Your task to perform on an android device: all mails in gmail Image 0: 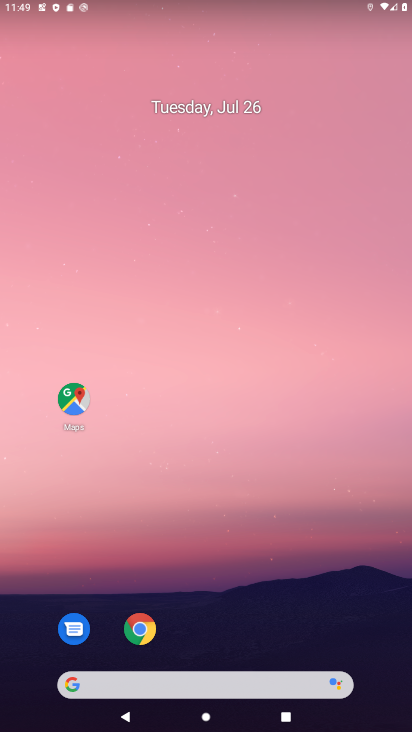
Step 0: drag from (224, 727) to (220, 160)
Your task to perform on an android device: all mails in gmail Image 1: 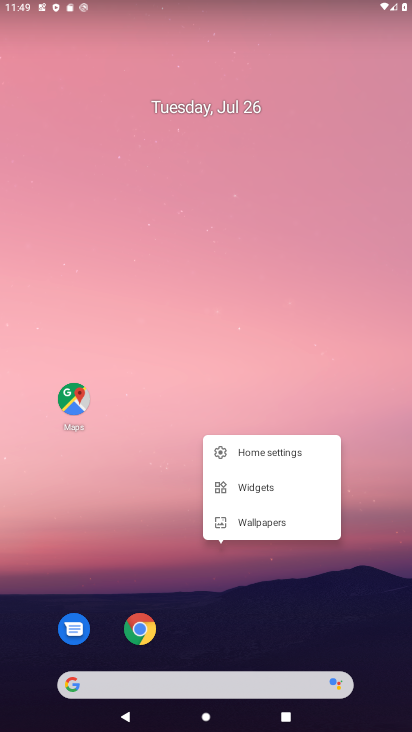
Step 1: click (205, 345)
Your task to perform on an android device: all mails in gmail Image 2: 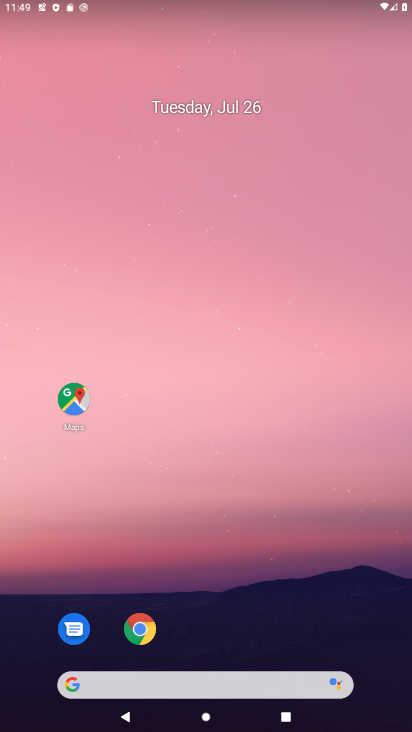
Step 2: drag from (223, 716) to (220, 325)
Your task to perform on an android device: all mails in gmail Image 3: 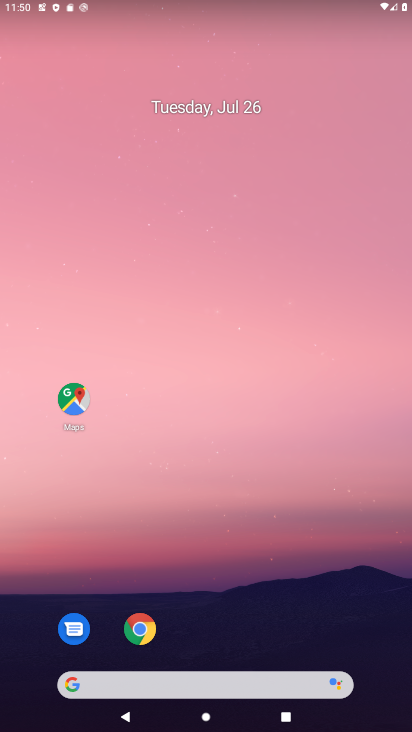
Step 3: drag from (229, 725) to (229, 73)
Your task to perform on an android device: all mails in gmail Image 4: 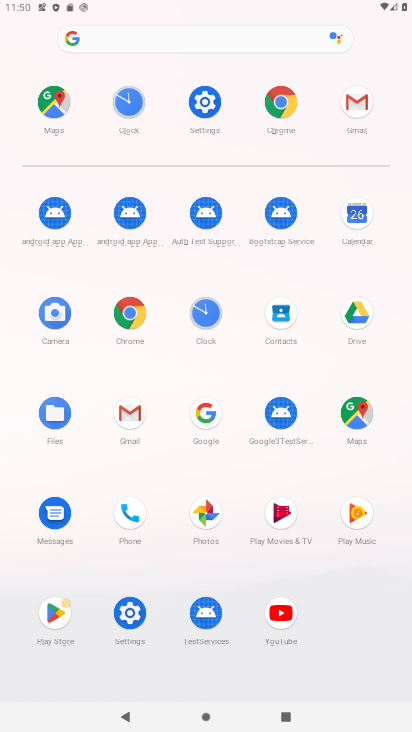
Step 4: click (137, 414)
Your task to perform on an android device: all mails in gmail Image 5: 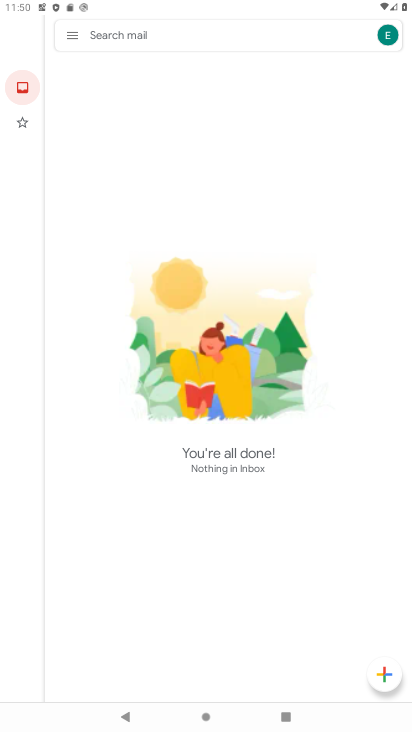
Step 5: click (71, 33)
Your task to perform on an android device: all mails in gmail Image 6: 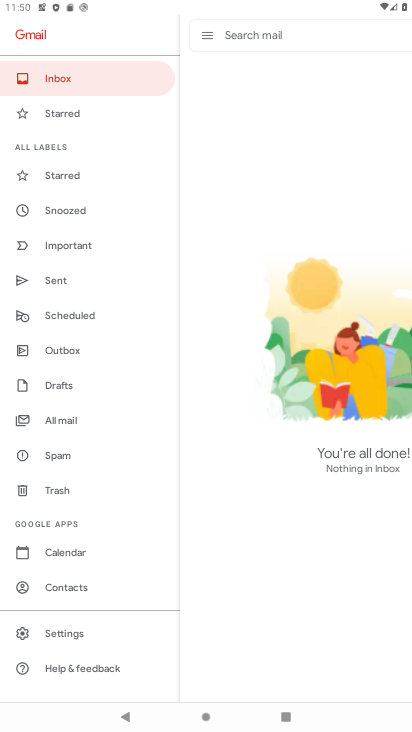
Step 6: click (60, 419)
Your task to perform on an android device: all mails in gmail Image 7: 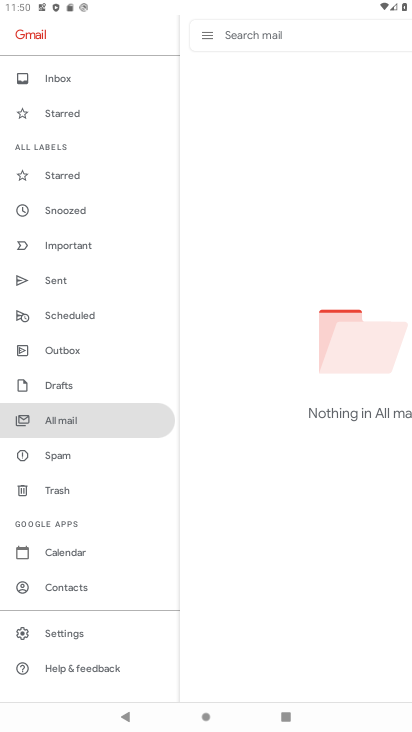
Step 7: task complete